Your task to perform on an android device: Search for Italian restaurants on Maps Image 0: 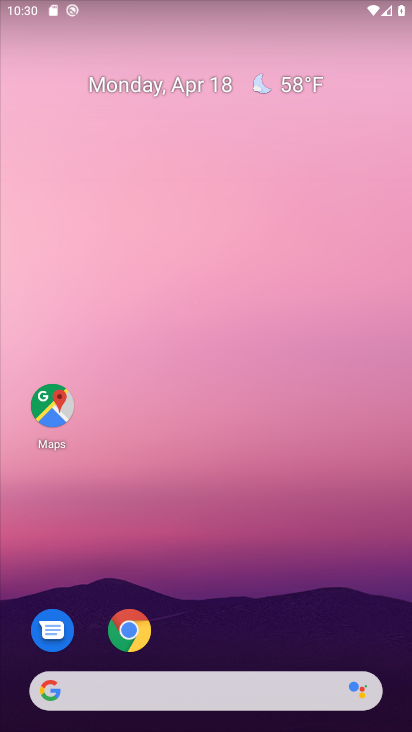
Step 0: drag from (206, 663) to (167, 19)
Your task to perform on an android device: Search for Italian restaurants on Maps Image 1: 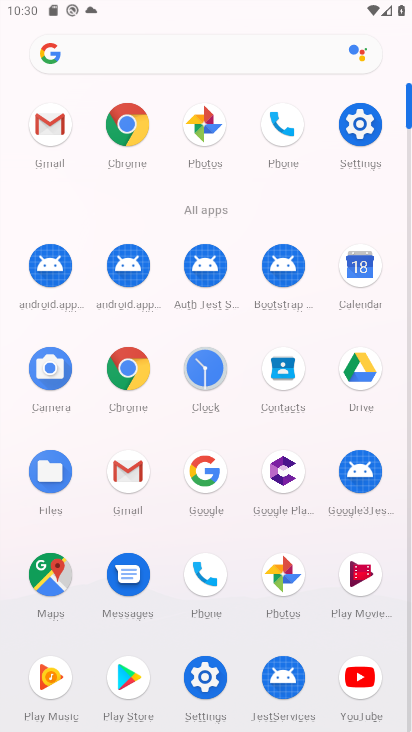
Step 1: click (51, 579)
Your task to perform on an android device: Search for Italian restaurants on Maps Image 2: 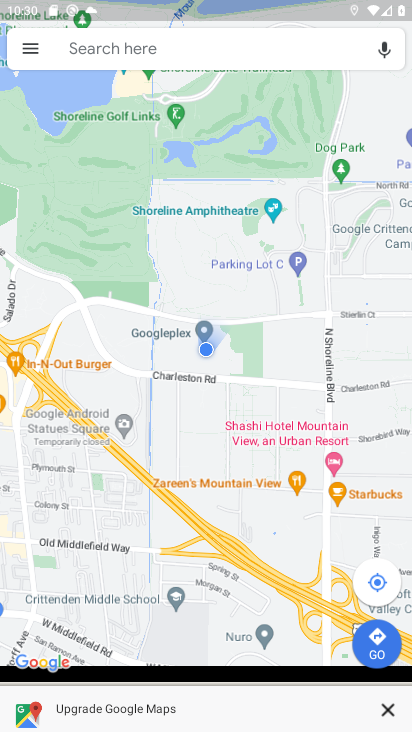
Step 2: click (187, 51)
Your task to perform on an android device: Search for Italian restaurants on Maps Image 3: 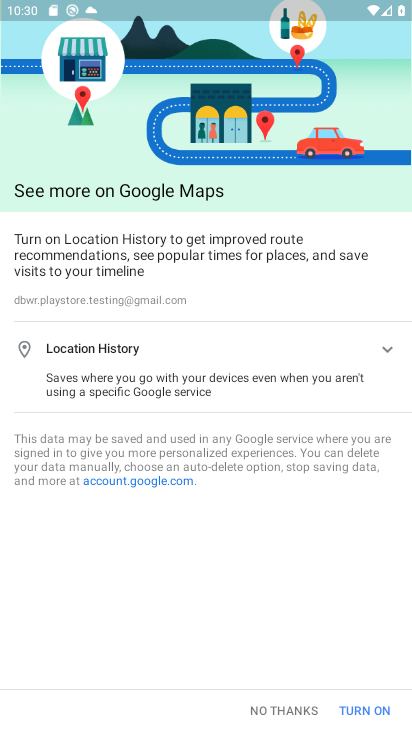
Step 3: click (377, 713)
Your task to perform on an android device: Search for Italian restaurants on Maps Image 4: 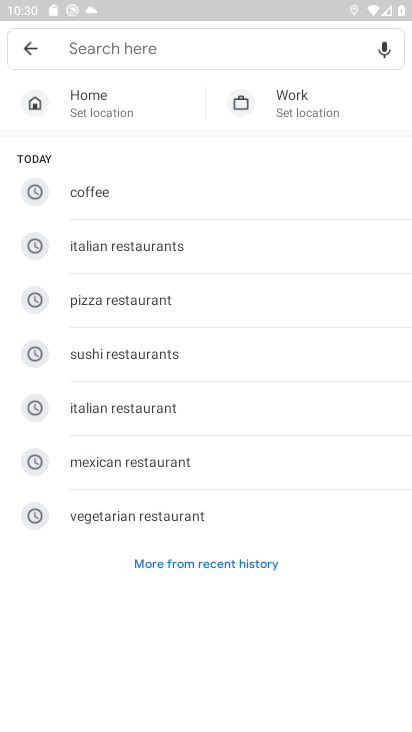
Step 4: click (106, 405)
Your task to perform on an android device: Search for Italian restaurants on Maps Image 5: 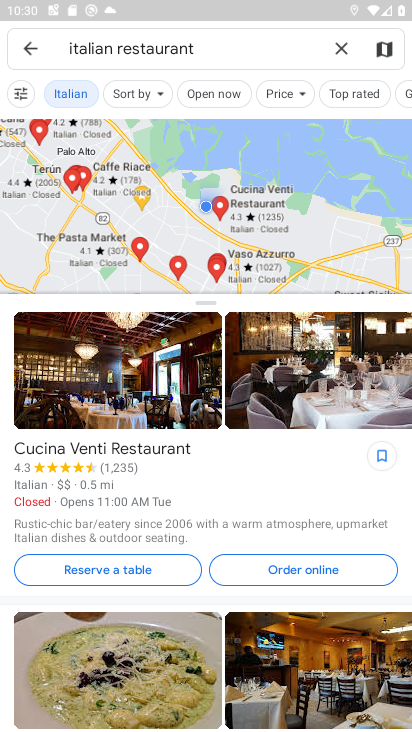
Step 5: task complete